Your task to perform on an android device: see creations saved in the google photos Image 0: 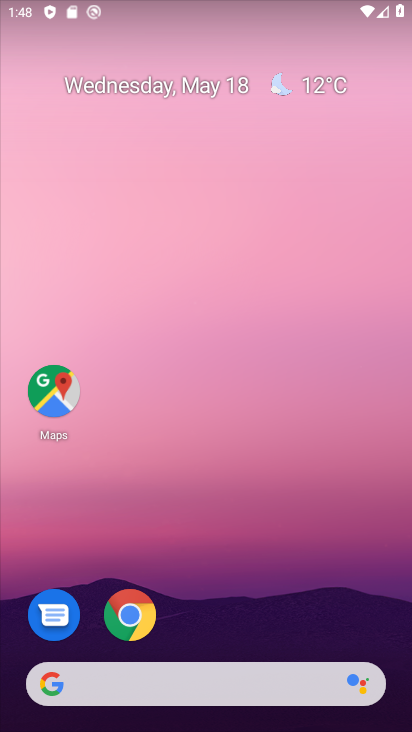
Step 0: drag from (319, 593) to (241, 19)
Your task to perform on an android device: see creations saved in the google photos Image 1: 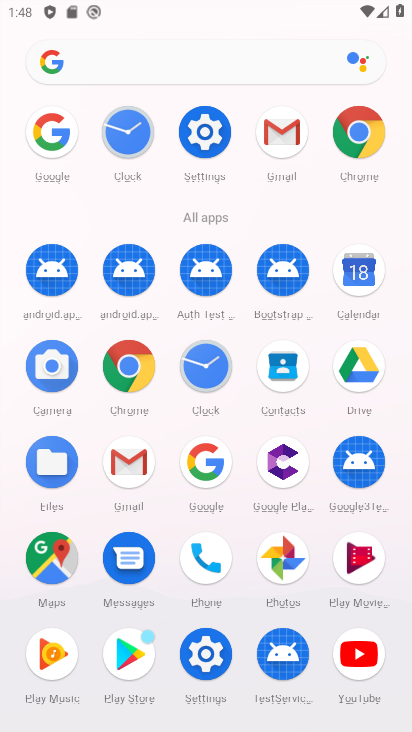
Step 1: click (282, 552)
Your task to perform on an android device: see creations saved in the google photos Image 2: 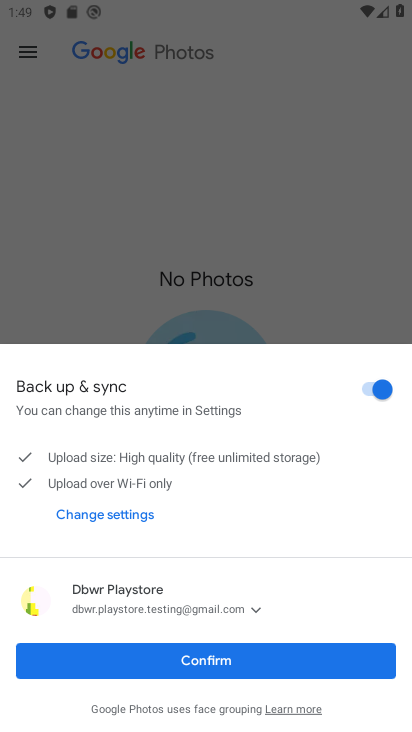
Step 2: click (239, 651)
Your task to perform on an android device: see creations saved in the google photos Image 3: 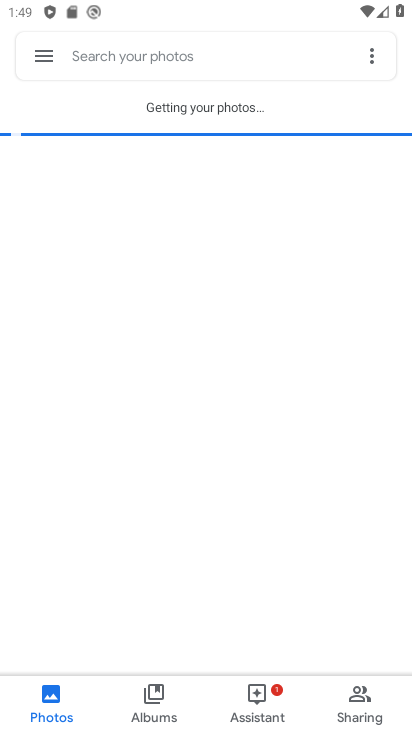
Step 3: click (253, 64)
Your task to perform on an android device: see creations saved in the google photos Image 4: 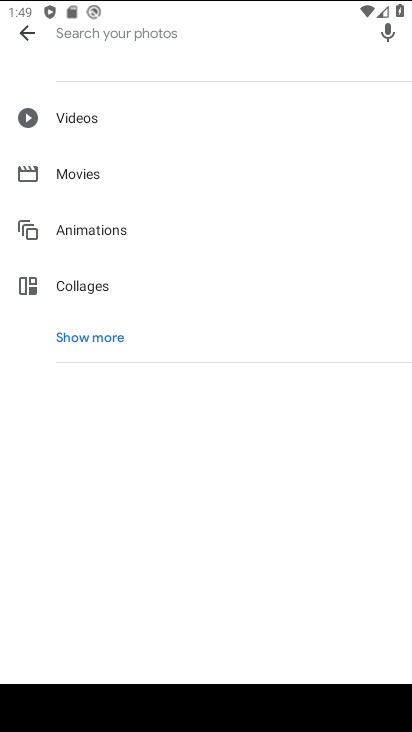
Step 4: click (114, 344)
Your task to perform on an android device: see creations saved in the google photos Image 5: 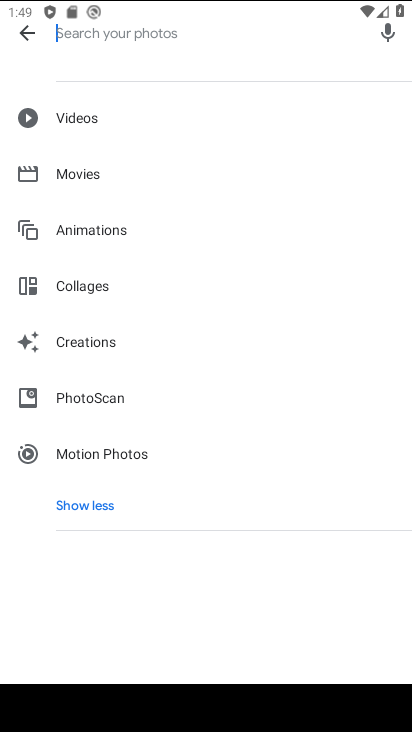
Step 5: click (89, 338)
Your task to perform on an android device: see creations saved in the google photos Image 6: 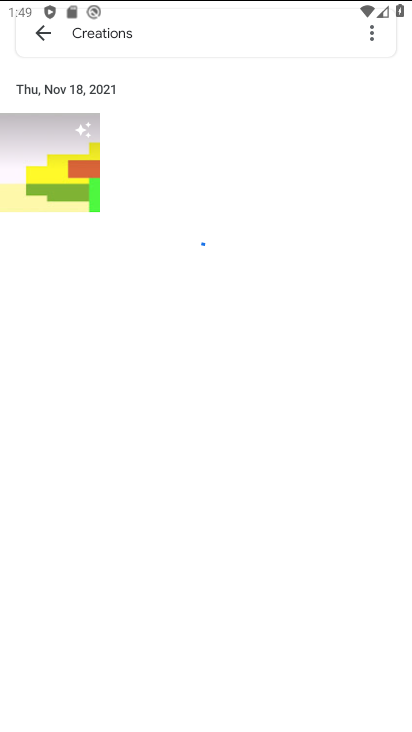
Step 6: task complete